Your task to perform on an android device: What's the weather like inToronto? Image 0: 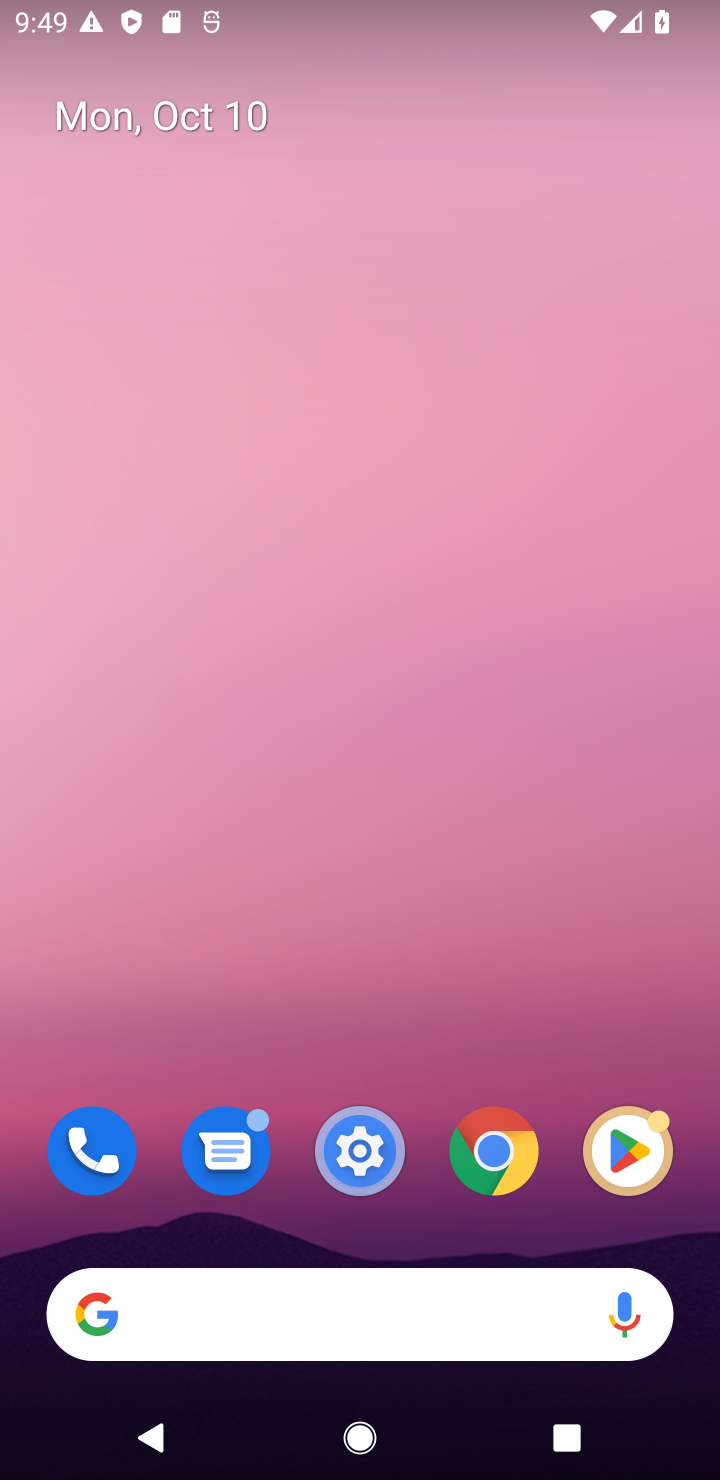
Step 0: click (466, 1145)
Your task to perform on an android device: What's the weather like inToronto? Image 1: 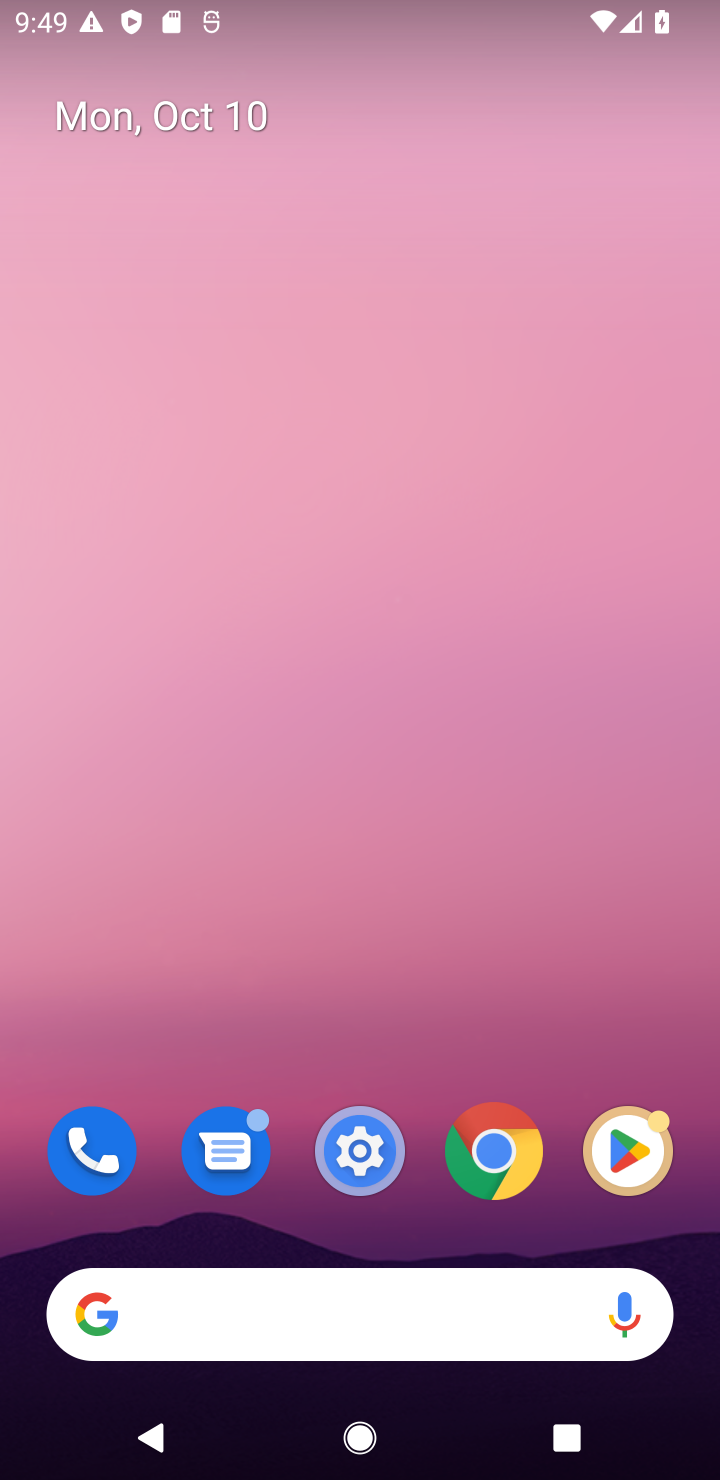
Step 1: click (466, 1145)
Your task to perform on an android device: What's the weather like inToronto? Image 2: 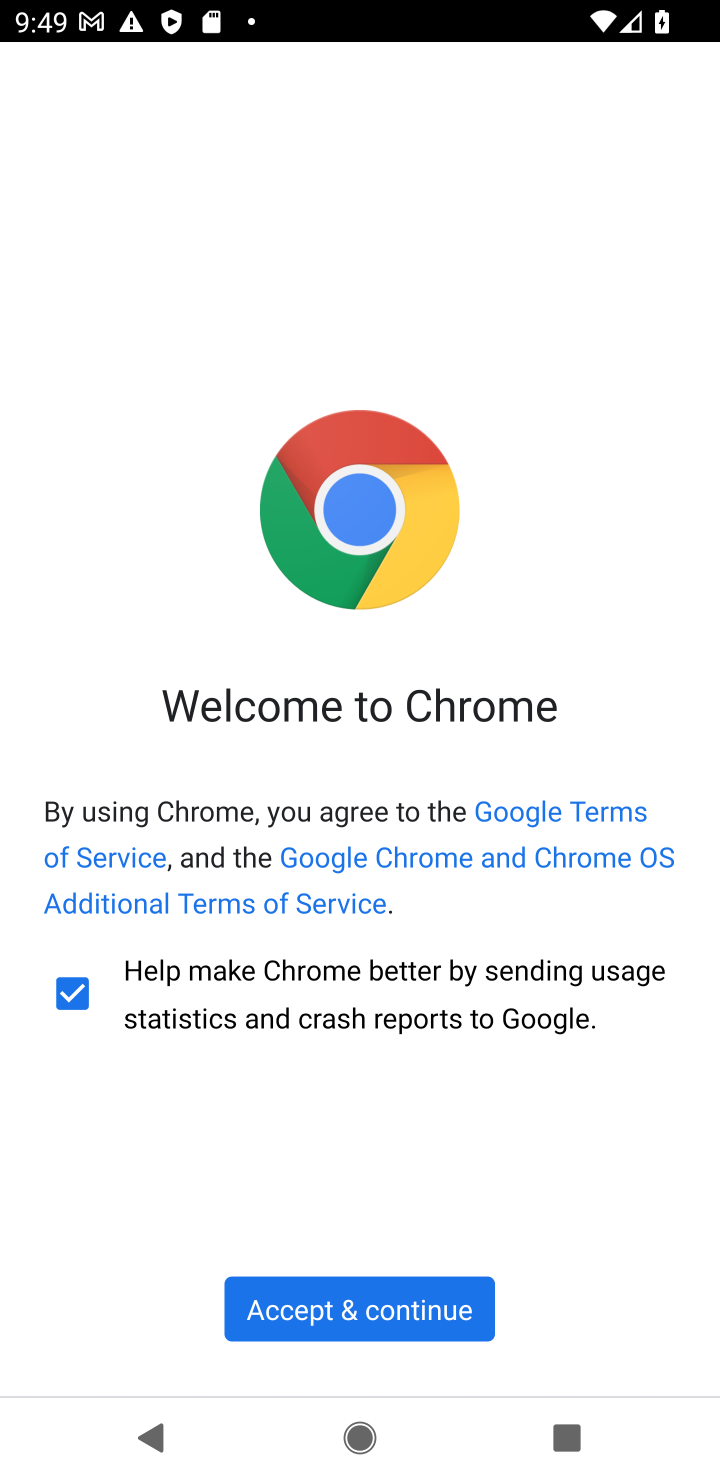
Step 2: click (306, 1323)
Your task to perform on an android device: What's the weather like inToronto? Image 3: 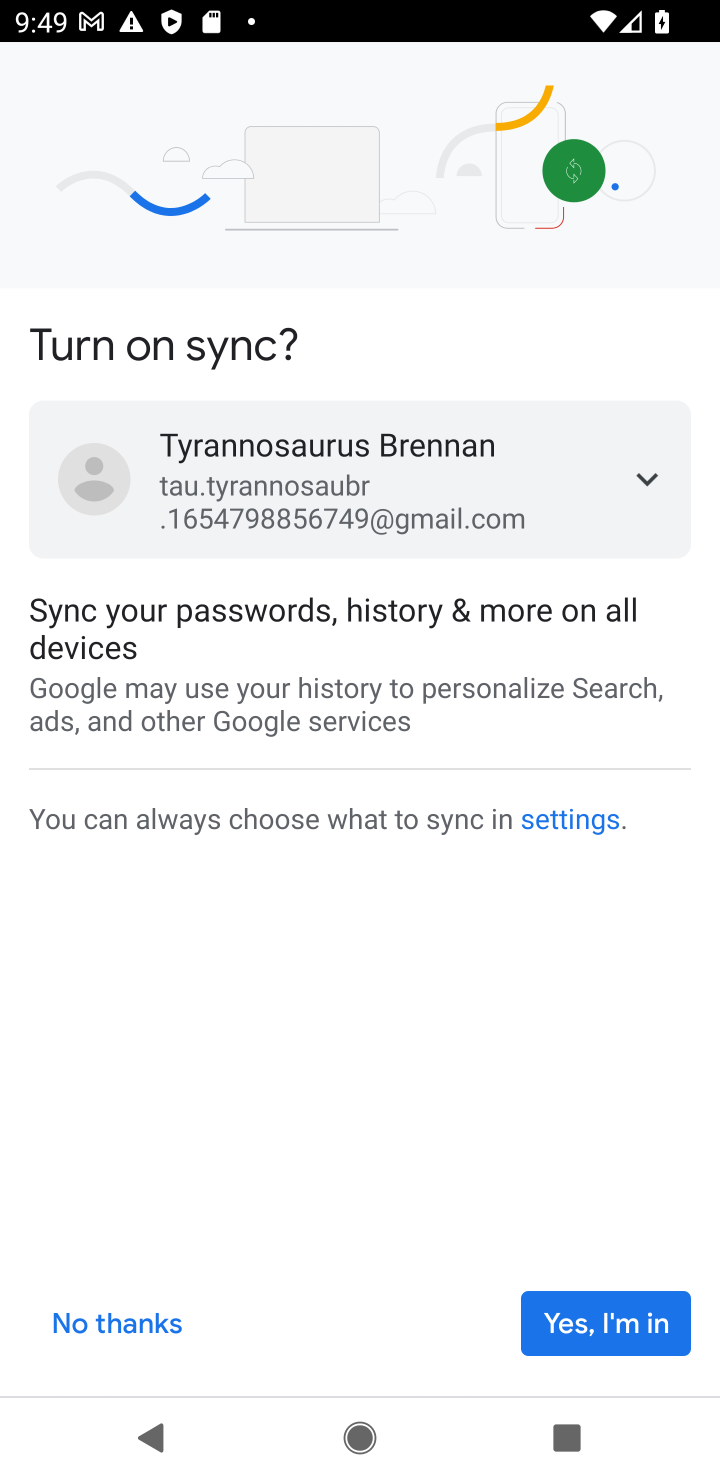
Step 3: click (595, 1327)
Your task to perform on an android device: What's the weather like inToronto? Image 4: 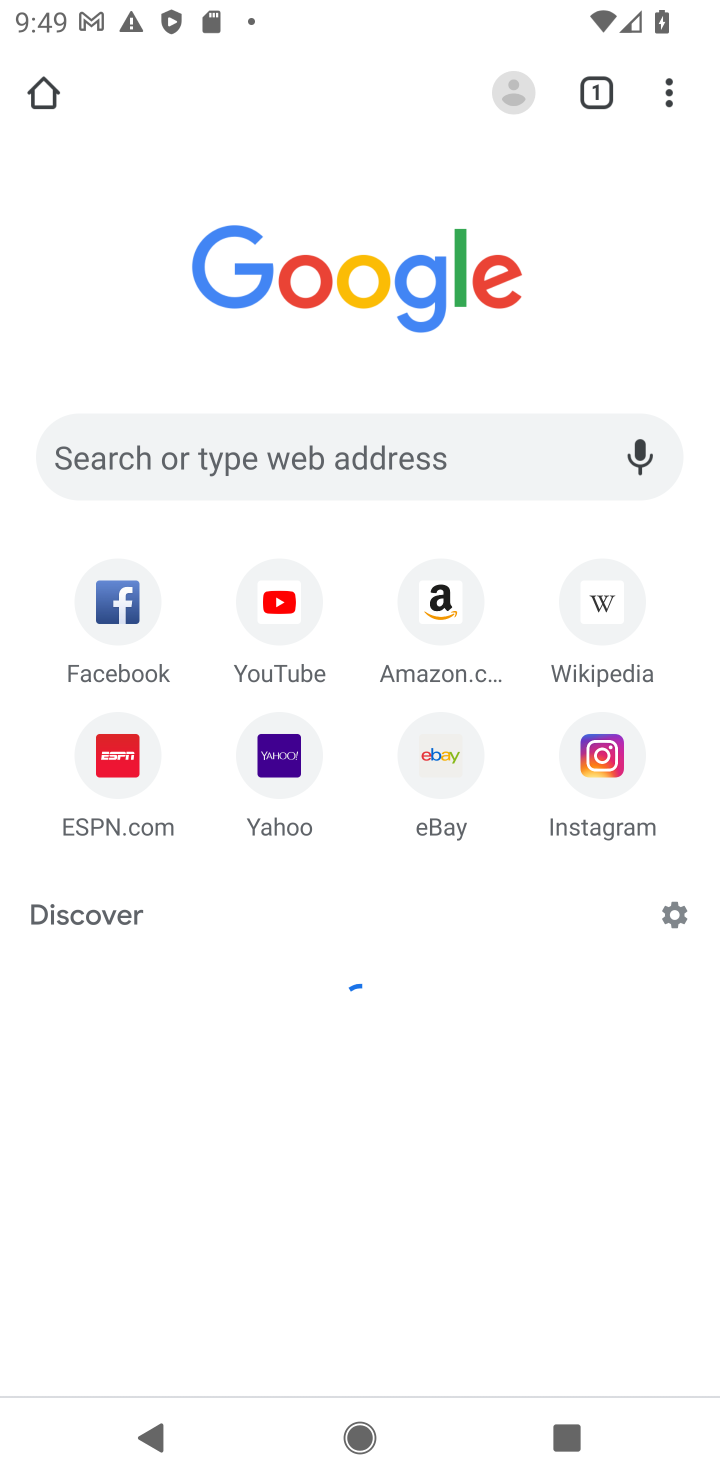
Step 4: click (595, 1327)
Your task to perform on an android device: What's the weather like inToronto? Image 5: 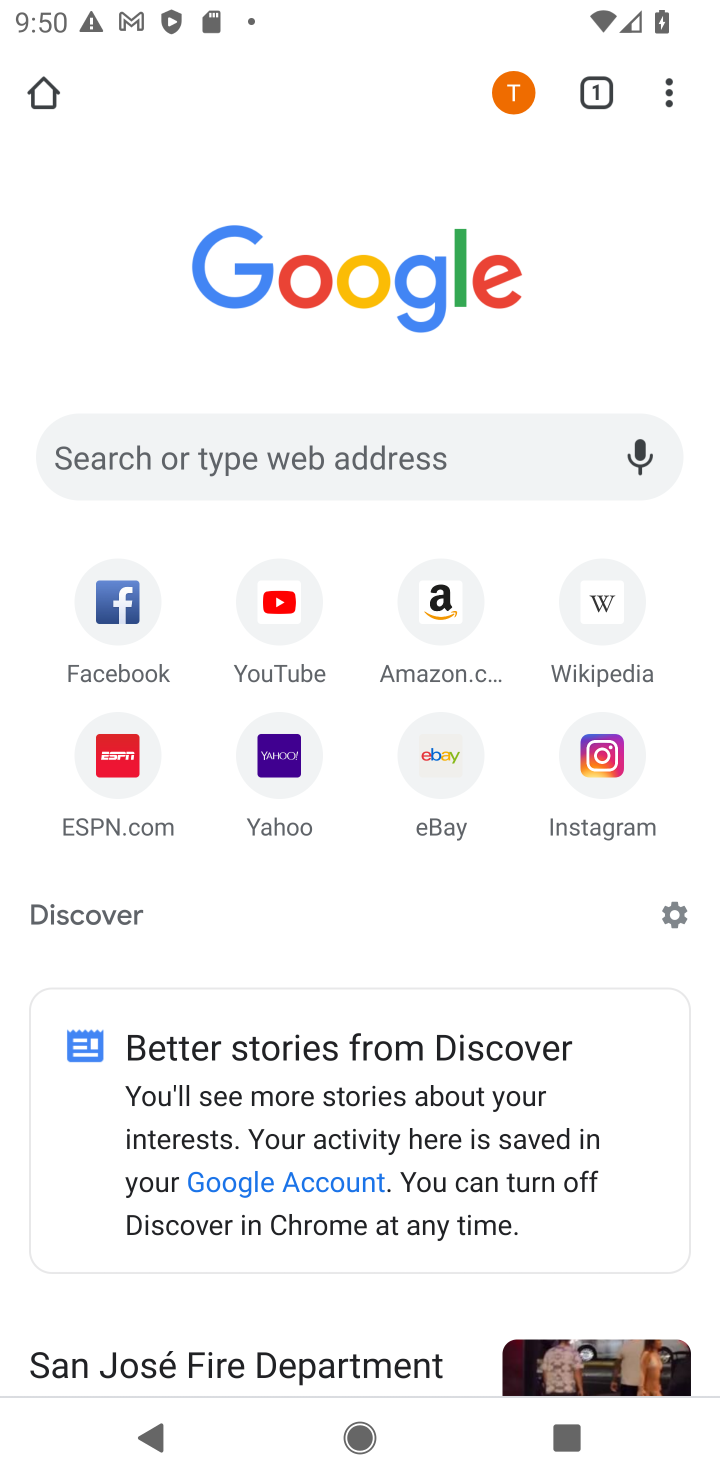
Step 5: click (258, 450)
Your task to perform on an android device: What's the weather like inToronto? Image 6: 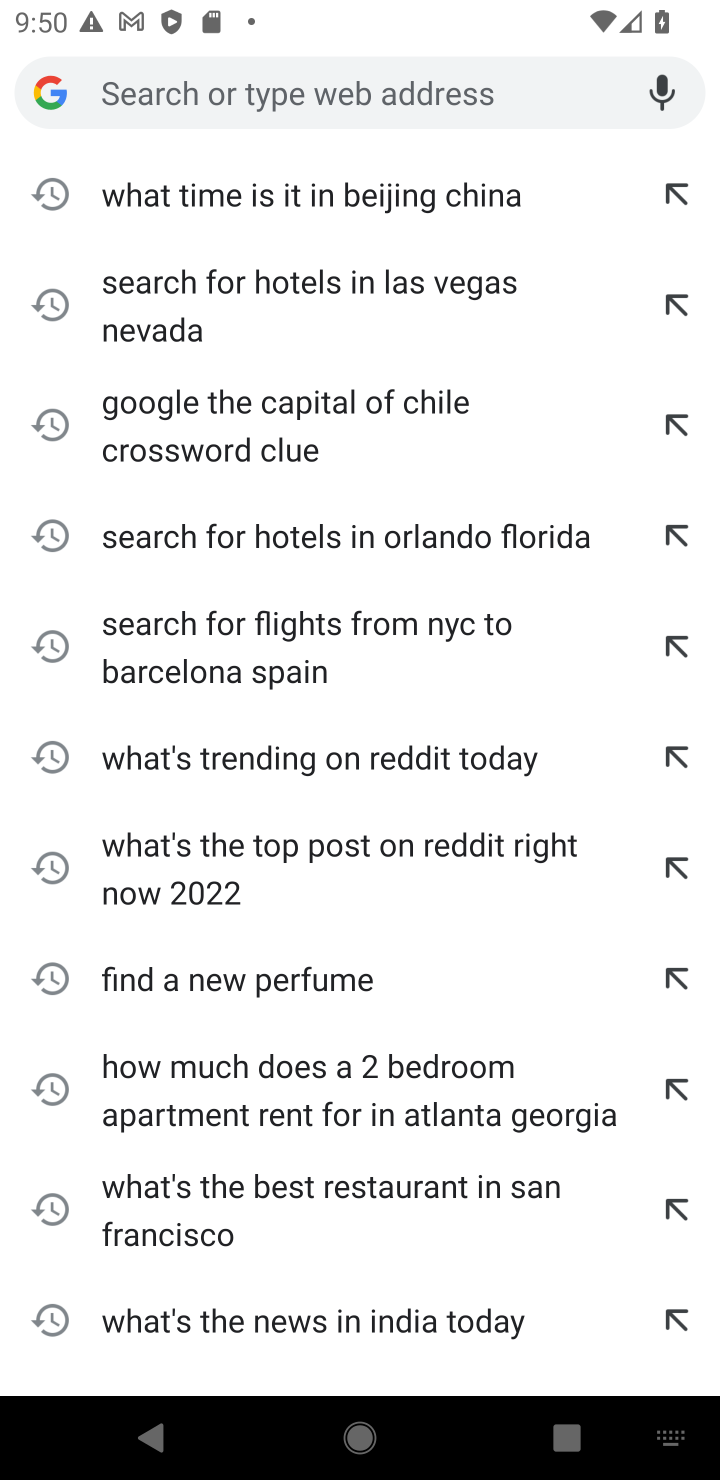
Step 6: type "What's the weather like inToronto?"
Your task to perform on an android device: What's the weather like inToronto? Image 7: 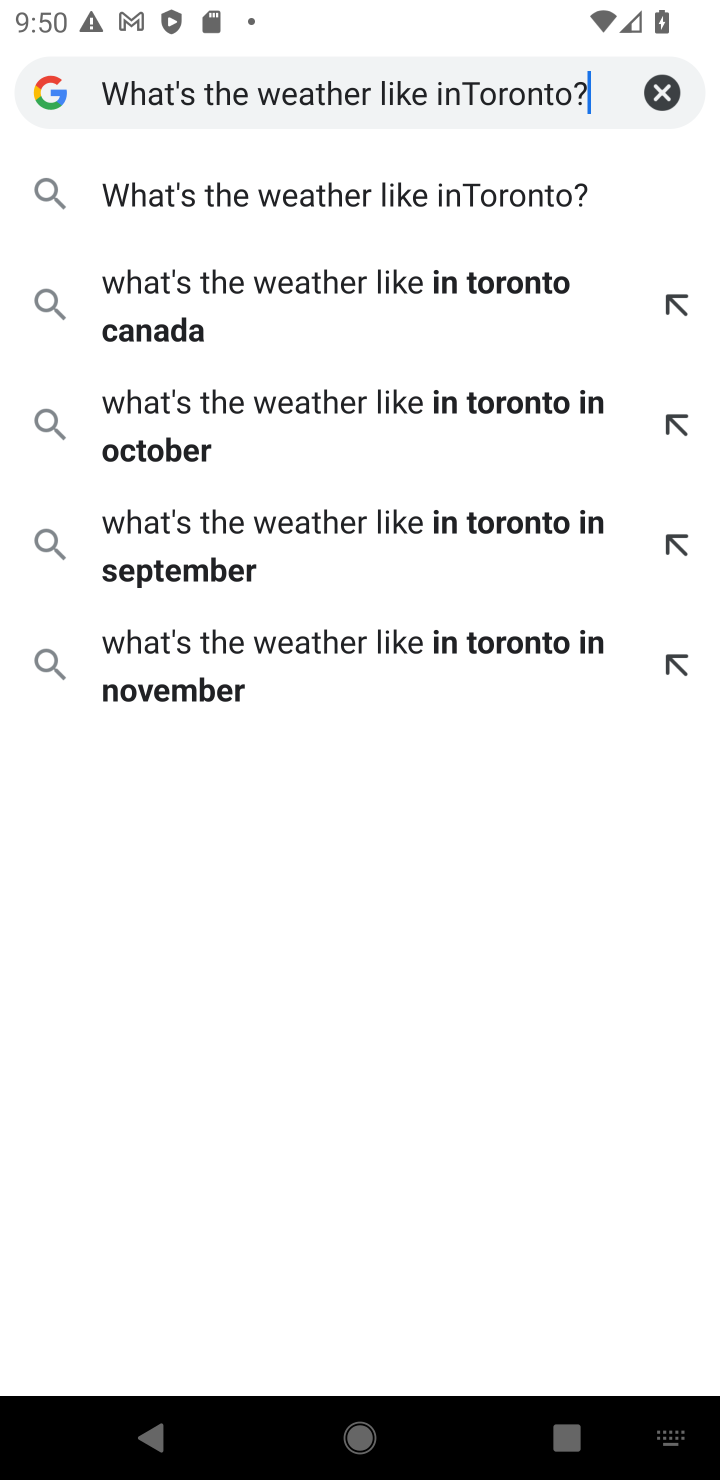
Step 7: click (323, 170)
Your task to perform on an android device: What's the weather like inToronto? Image 8: 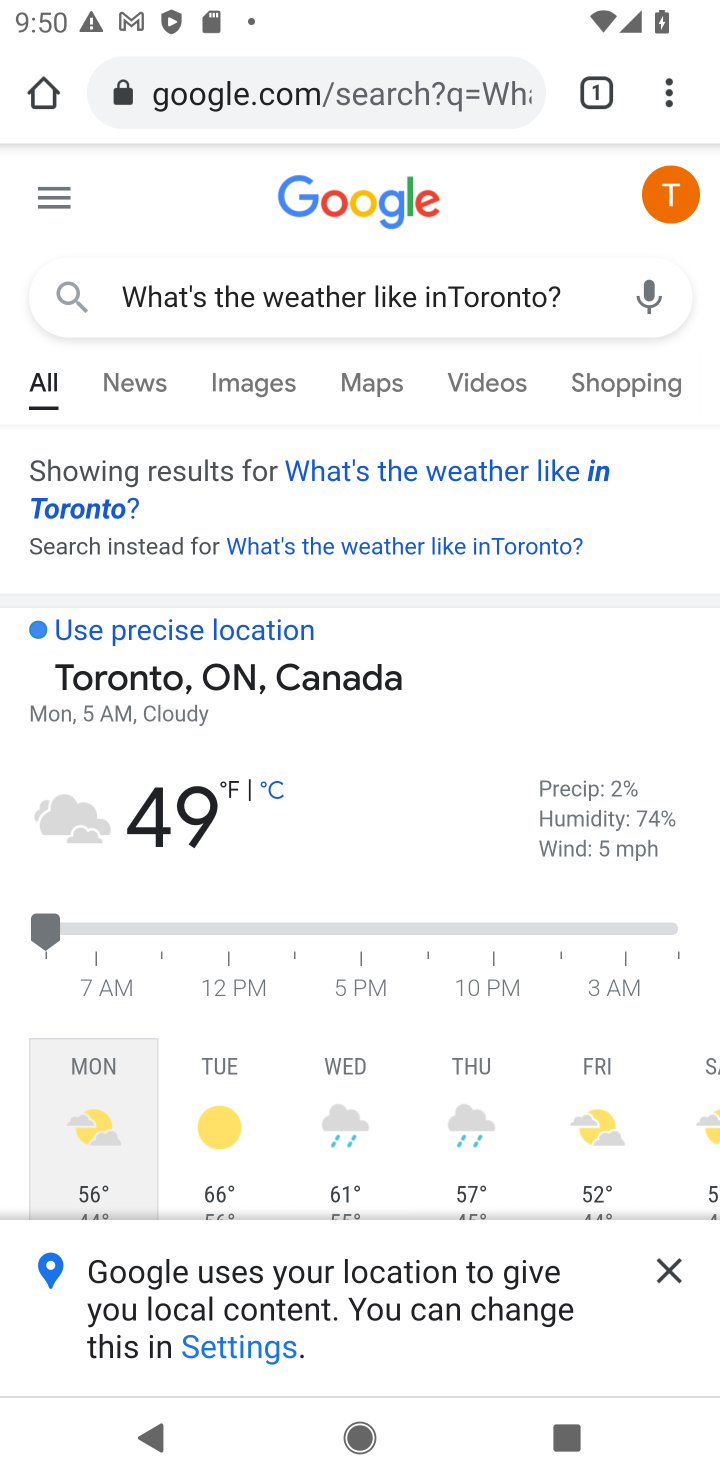
Step 8: task complete